Your task to perform on an android device: turn on wifi Image 0: 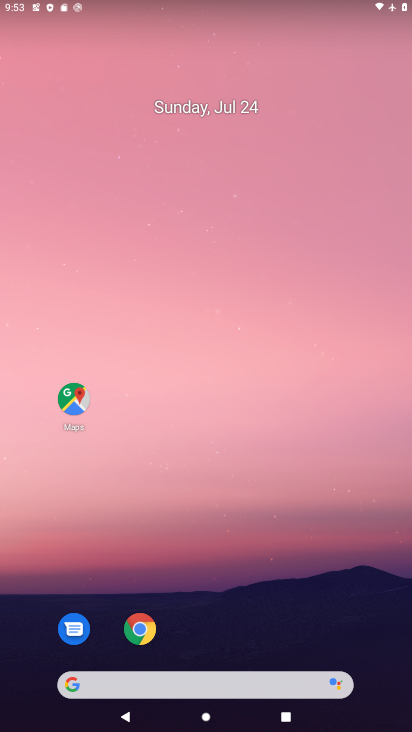
Step 0: drag from (255, 623) to (146, 28)
Your task to perform on an android device: turn on wifi Image 1: 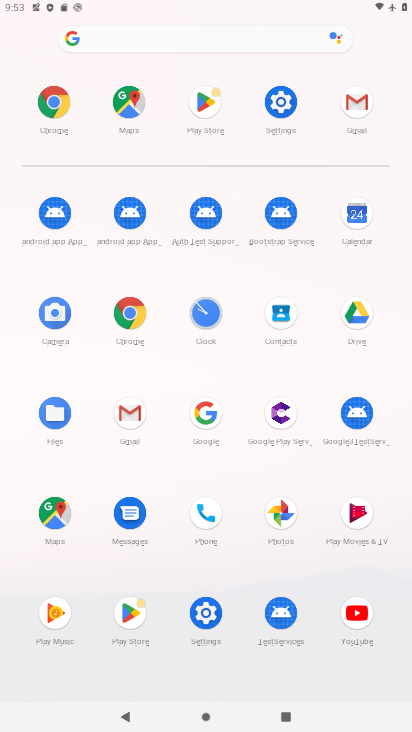
Step 1: click (266, 101)
Your task to perform on an android device: turn on wifi Image 2: 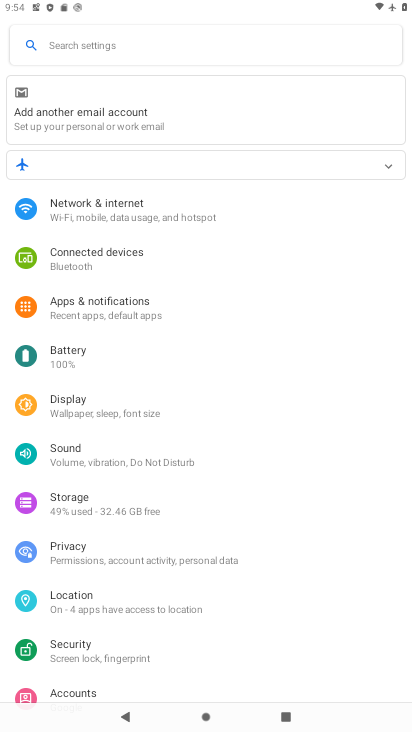
Step 2: click (180, 224)
Your task to perform on an android device: turn on wifi Image 3: 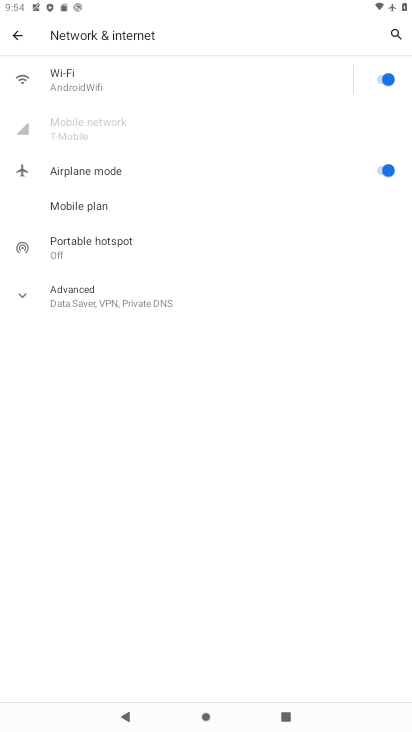
Step 3: click (377, 95)
Your task to perform on an android device: turn on wifi Image 4: 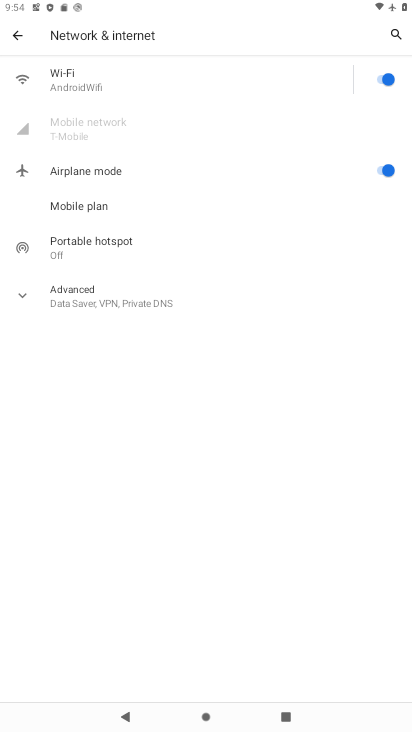
Step 4: click (377, 95)
Your task to perform on an android device: turn on wifi Image 5: 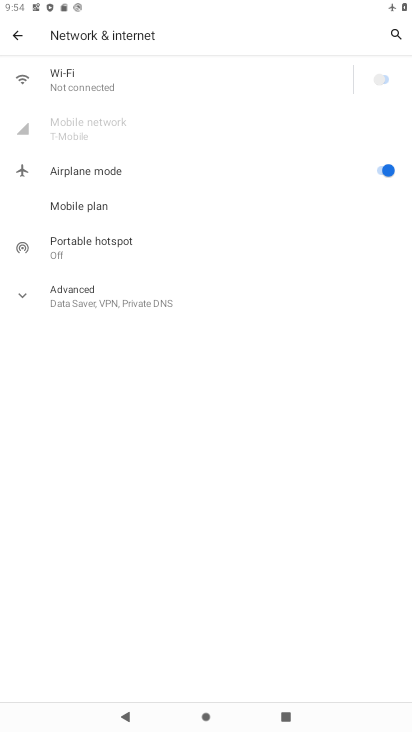
Step 5: task complete